Your task to perform on an android device: search for starred emails in the gmail app Image 0: 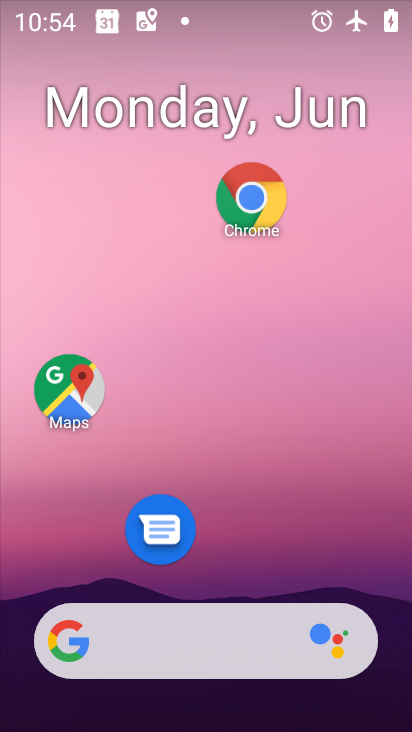
Step 0: drag from (248, 568) to (262, 146)
Your task to perform on an android device: search for starred emails in the gmail app Image 1: 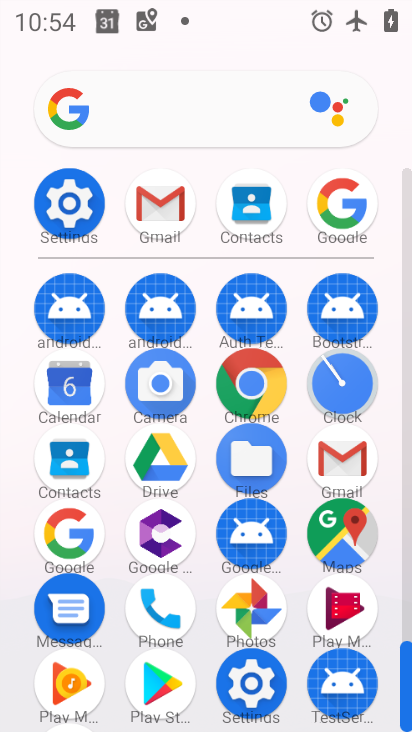
Step 1: click (160, 213)
Your task to perform on an android device: search for starred emails in the gmail app Image 2: 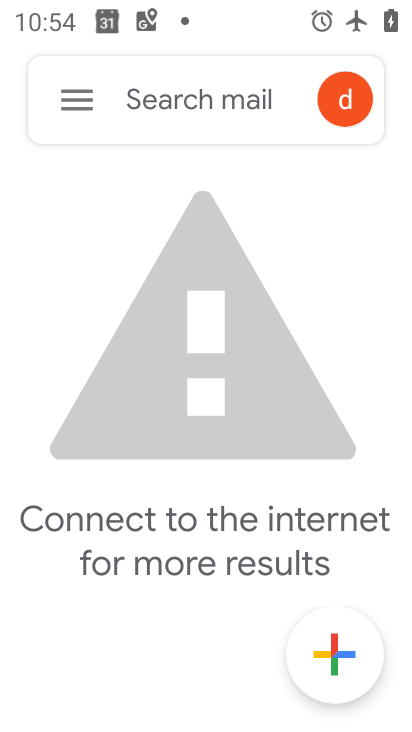
Step 2: click (92, 110)
Your task to perform on an android device: search for starred emails in the gmail app Image 3: 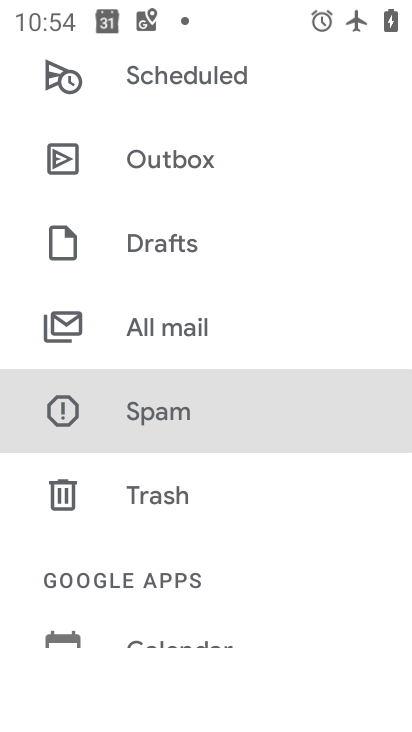
Step 3: drag from (217, 106) to (264, 445)
Your task to perform on an android device: search for starred emails in the gmail app Image 4: 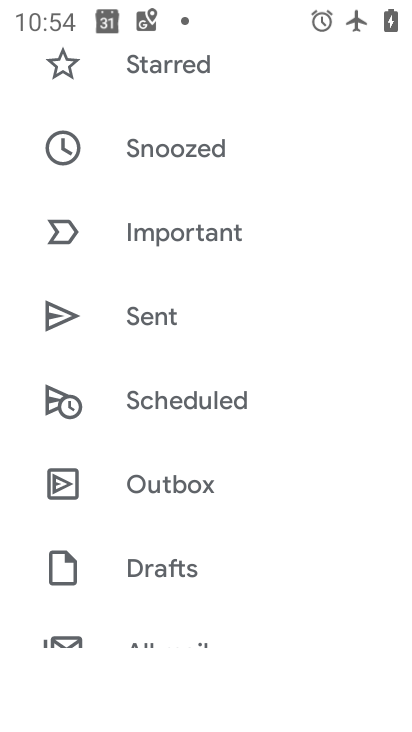
Step 4: drag from (200, 133) to (204, 377)
Your task to perform on an android device: search for starred emails in the gmail app Image 5: 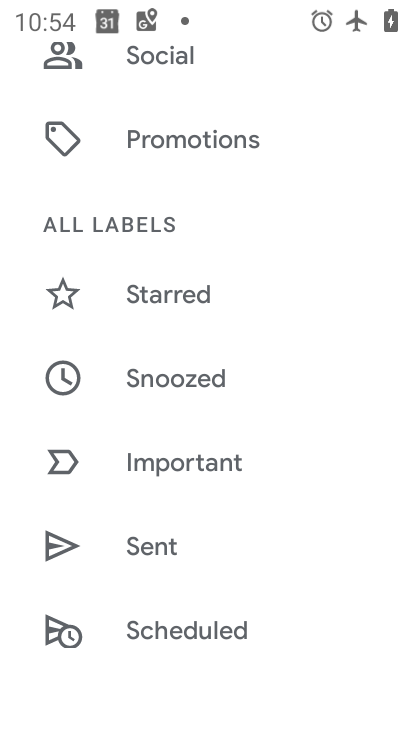
Step 5: click (183, 309)
Your task to perform on an android device: search for starred emails in the gmail app Image 6: 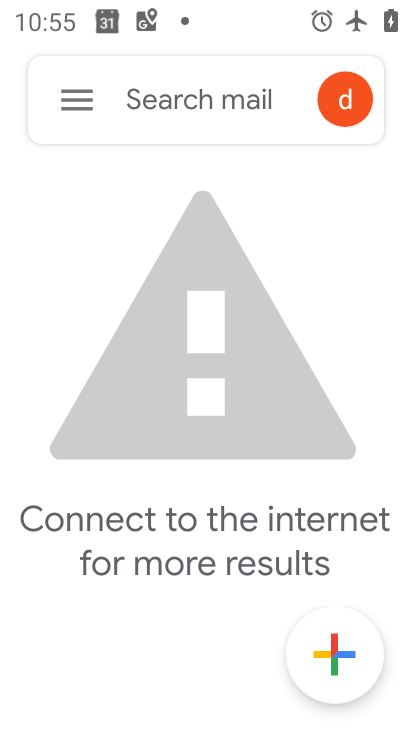
Step 6: task complete